Your task to perform on an android device: check battery use Image 0: 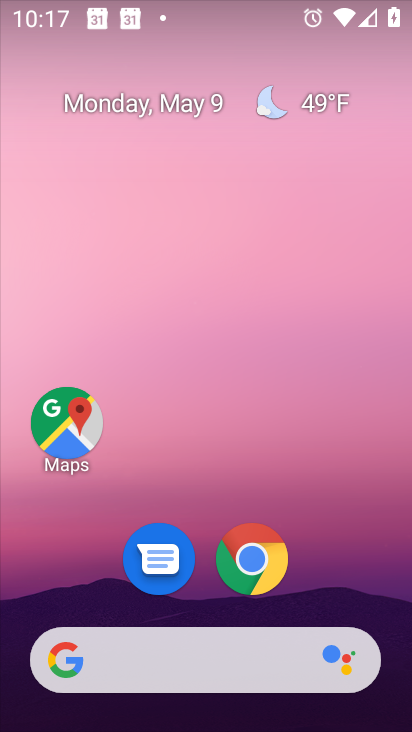
Step 0: drag from (203, 722) to (203, 167)
Your task to perform on an android device: check battery use Image 1: 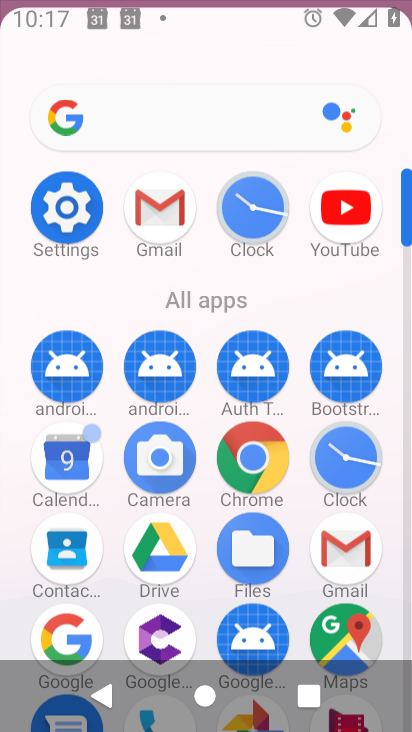
Step 1: click (77, 212)
Your task to perform on an android device: check battery use Image 2: 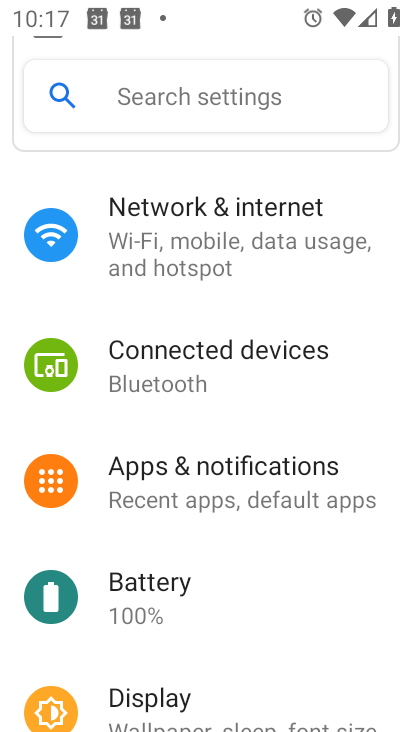
Step 2: click (144, 586)
Your task to perform on an android device: check battery use Image 3: 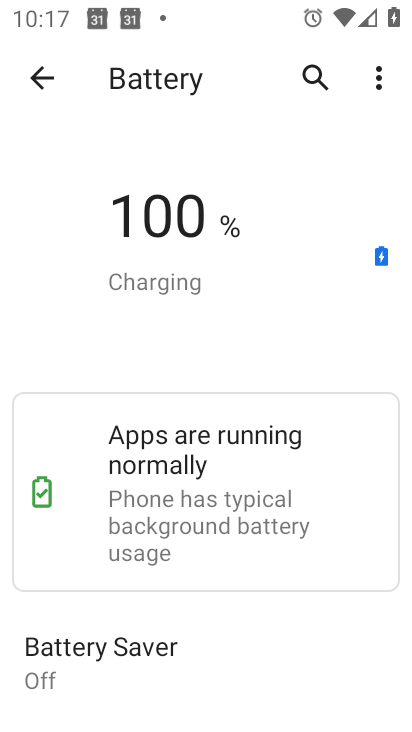
Step 3: click (375, 84)
Your task to perform on an android device: check battery use Image 4: 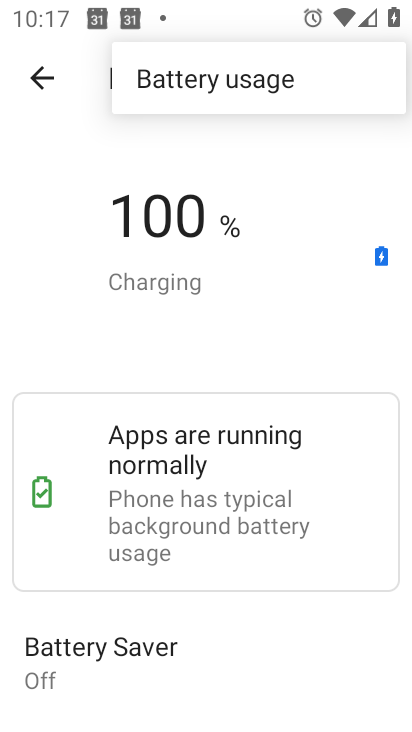
Step 4: click (213, 84)
Your task to perform on an android device: check battery use Image 5: 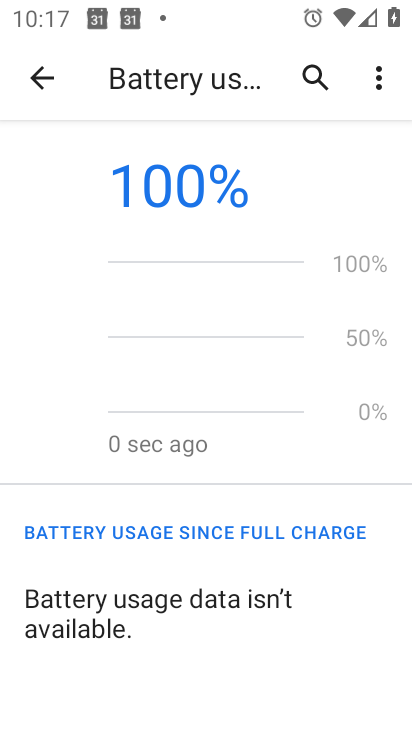
Step 5: task complete